Your task to perform on an android device: Check my gmail inbox Image 0: 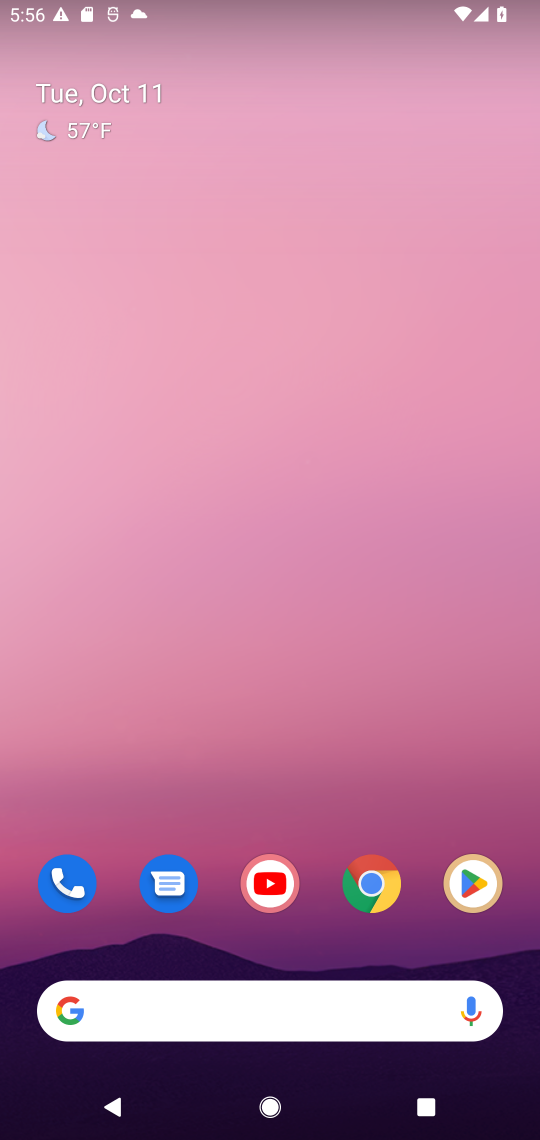
Step 0: drag from (301, 933) to (324, 15)
Your task to perform on an android device: Check my gmail inbox Image 1: 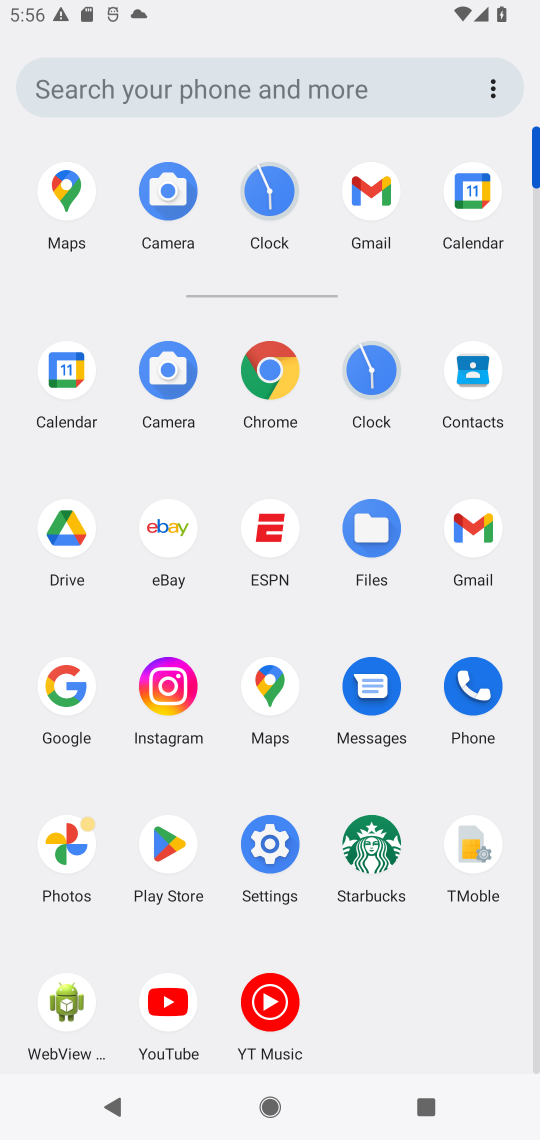
Step 1: click (392, 187)
Your task to perform on an android device: Check my gmail inbox Image 2: 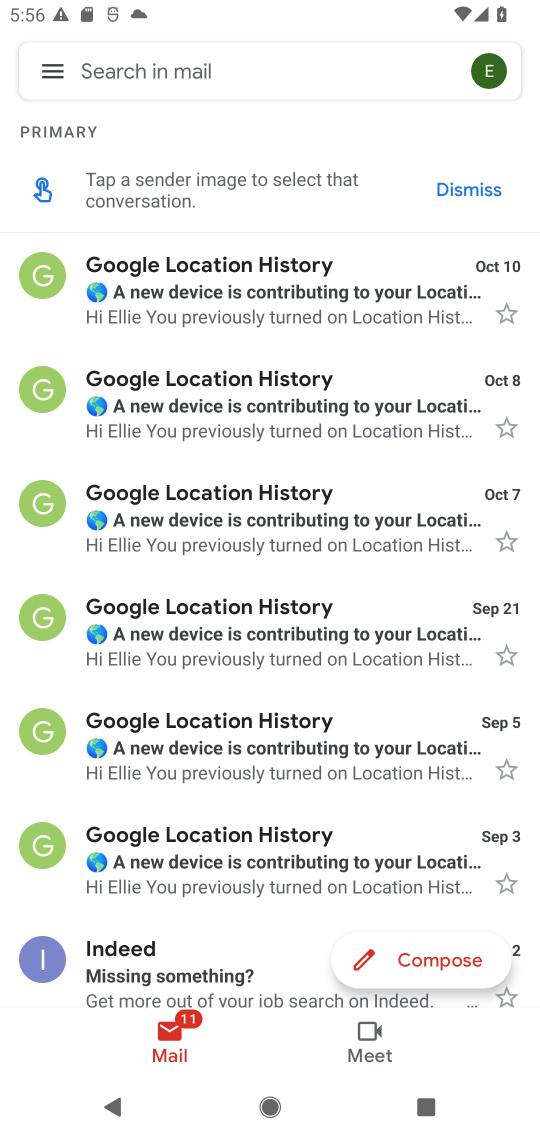
Step 2: task complete